Your task to perform on an android device: Go to Yahoo.com Image 0: 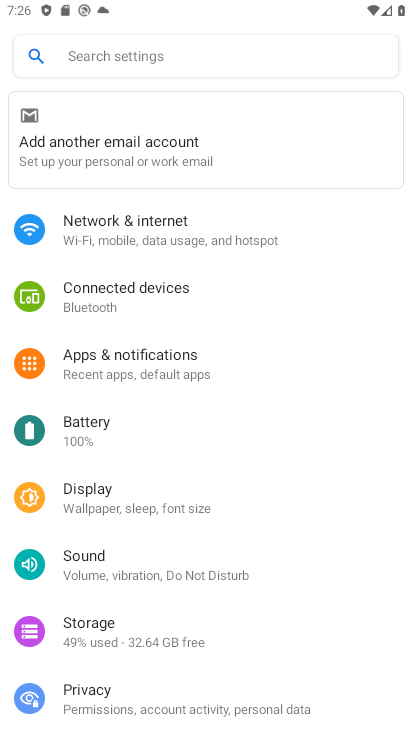
Step 0: press back button
Your task to perform on an android device: Go to Yahoo.com Image 1: 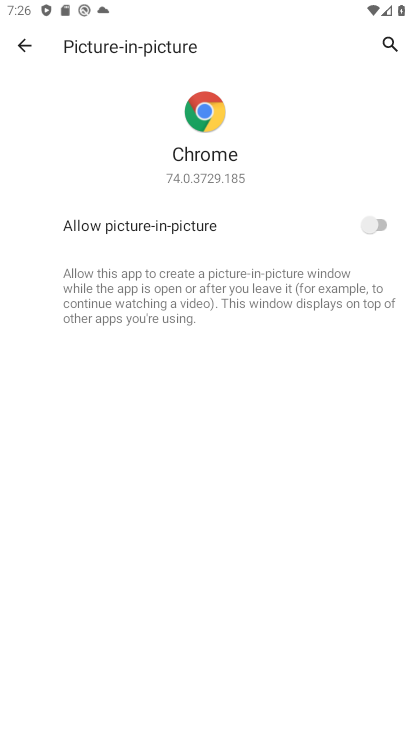
Step 1: press back button
Your task to perform on an android device: Go to Yahoo.com Image 2: 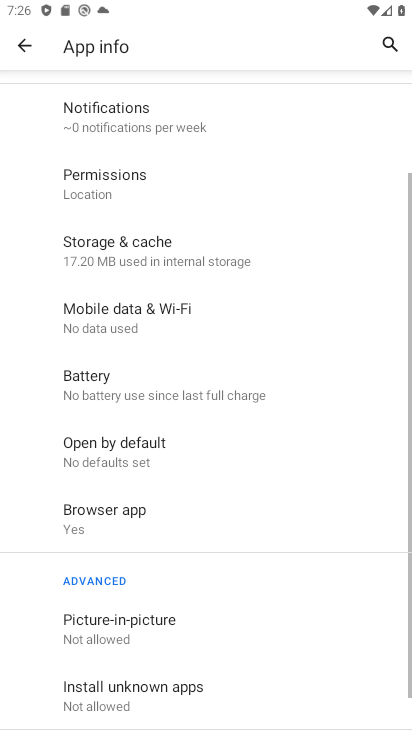
Step 2: press back button
Your task to perform on an android device: Go to Yahoo.com Image 3: 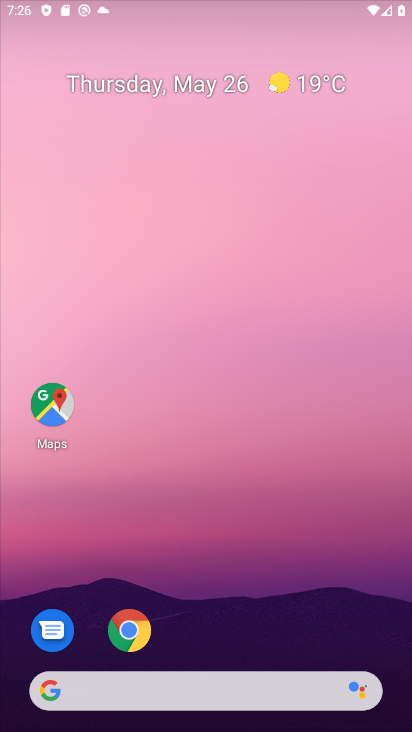
Step 3: press back button
Your task to perform on an android device: Go to Yahoo.com Image 4: 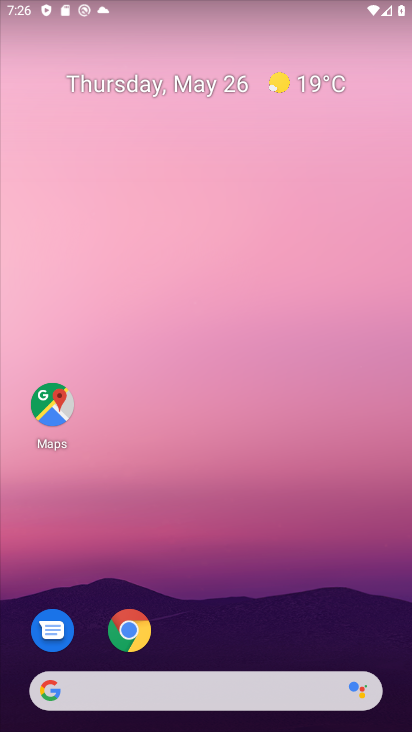
Step 4: click (126, 626)
Your task to perform on an android device: Go to Yahoo.com Image 5: 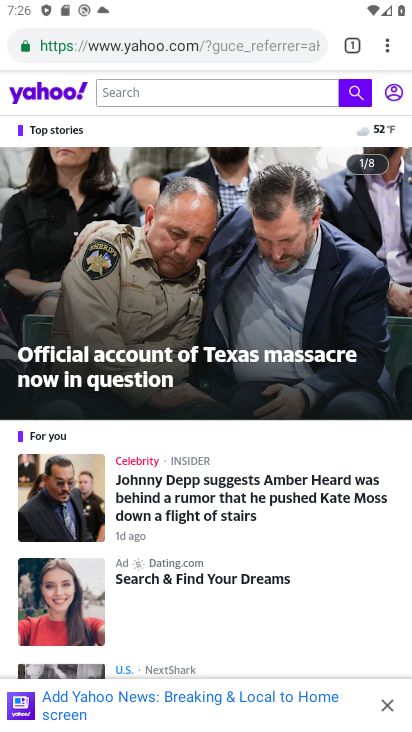
Step 5: click (246, 52)
Your task to perform on an android device: Go to Yahoo.com Image 6: 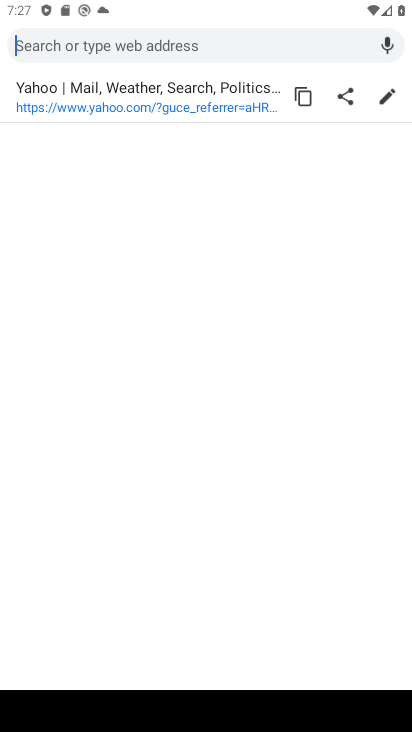
Step 6: type "Yahoo.com"
Your task to perform on an android device: Go to Yahoo.com Image 7: 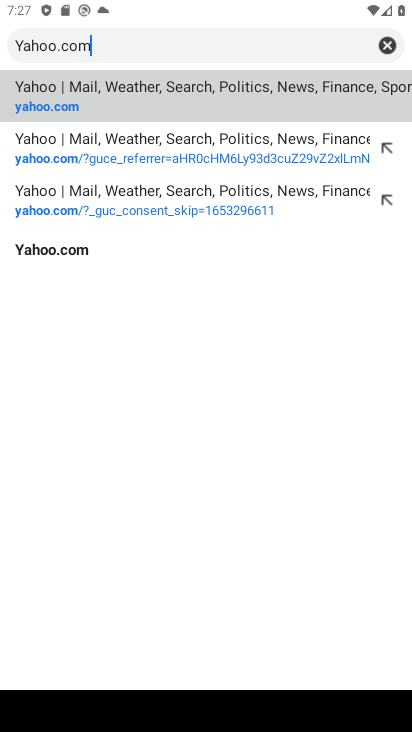
Step 7: click (353, 97)
Your task to perform on an android device: Go to Yahoo.com Image 8: 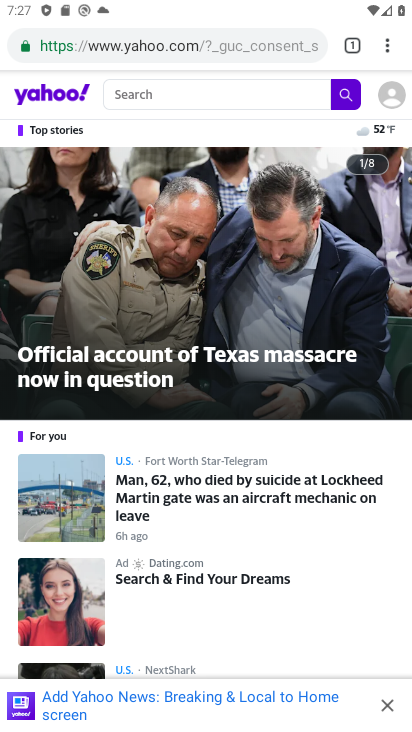
Step 8: task complete